Your task to perform on an android device: Go to Google maps Image 0: 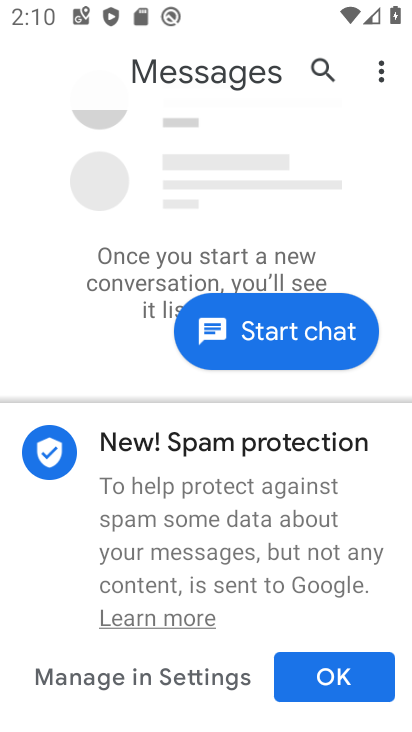
Step 0: press back button
Your task to perform on an android device: Go to Google maps Image 1: 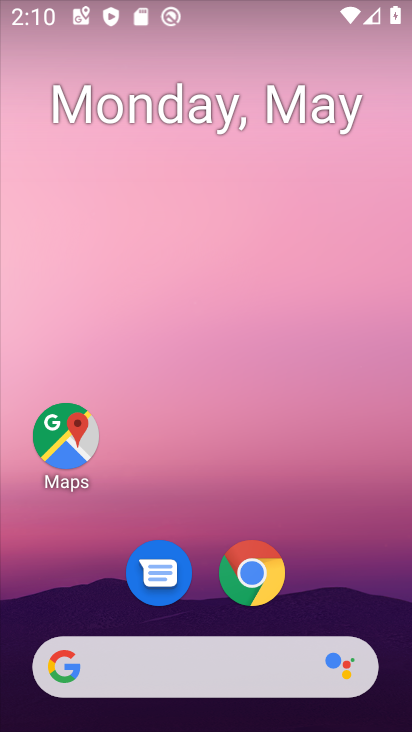
Step 1: click (84, 416)
Your task to perform on an android device: Go to Google maps Image 2: 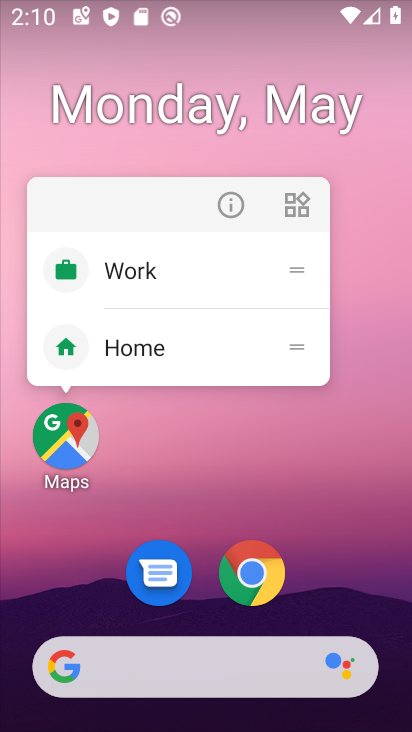
Step 2: click (86, 453)
Your task to perform on an android device: Go to Google maps Image 3: 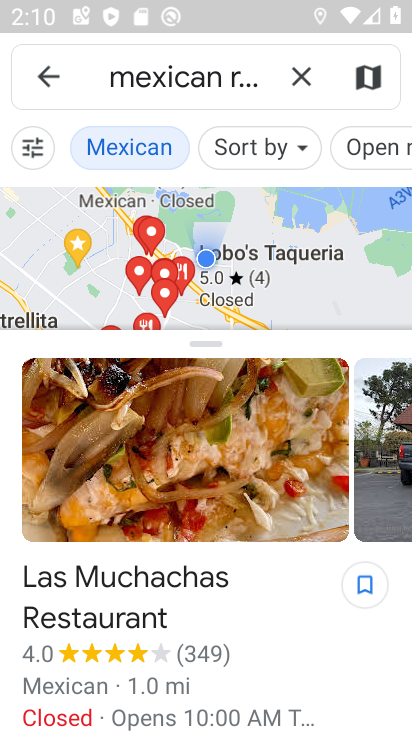
Step 3: task complete